Your task to perform on an android device: Open Youtube and go to the subscriptions tab Image 0: 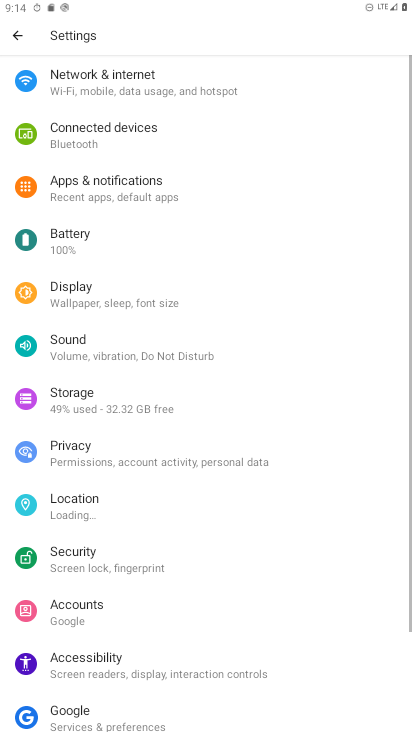
Step 0: press home button
Your task to perform on an android device: Open Youtube and go to the subscriptions tab Image 1: 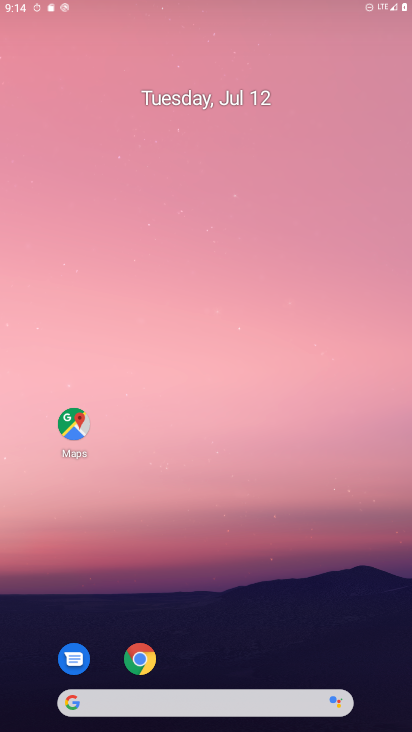
Step 1: drag from (366, 670) to (297, 90)
Your task to perform on an android device: Open Youtube and go to the subscriptions tab Image 2: 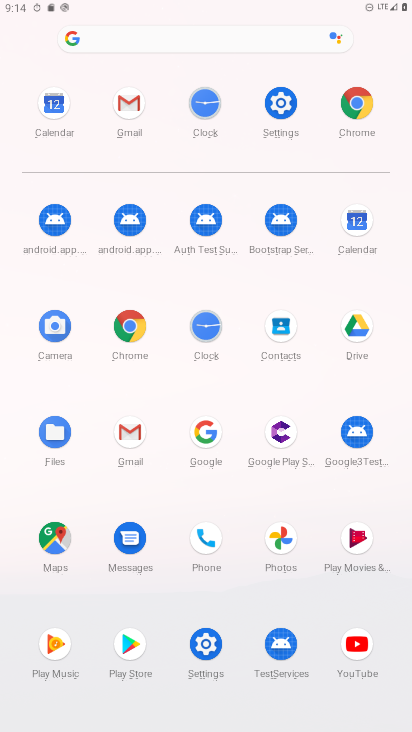
Step 2: click (353, 646)
Your task to perform on an android device: Open Youtube and go to the subscriptions tab Image 3: 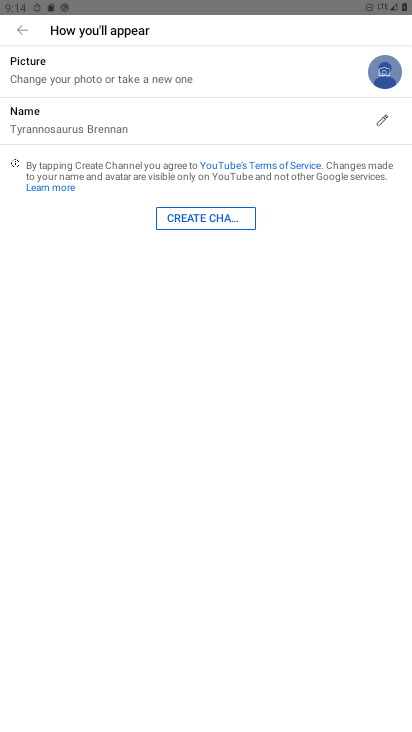
Step 3: task complete